Your task to perform on an android device: toggle javascript in the chrome app Image 0: 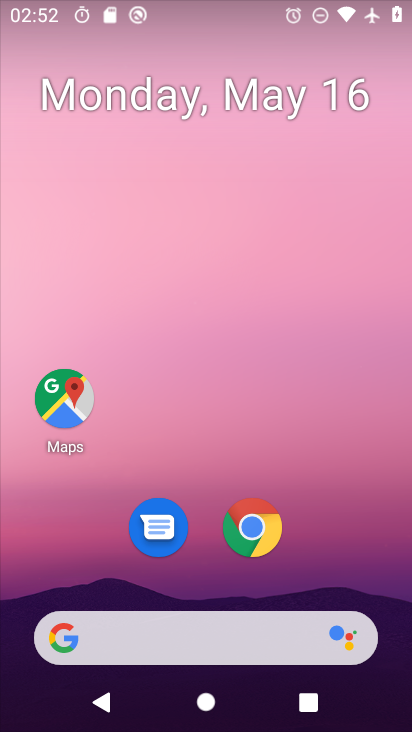
Step 0: click (303, 166)
Your task to perform on an android device: toggle javascript in the chrome app Image 1: 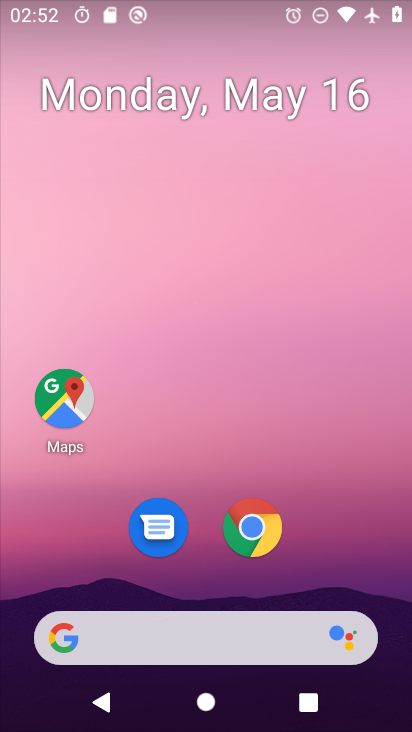
Step 1: drag from (197, 638) to (308, 251)
Your task to perform on an android device: toggle javascript in the chrome app Image 2: 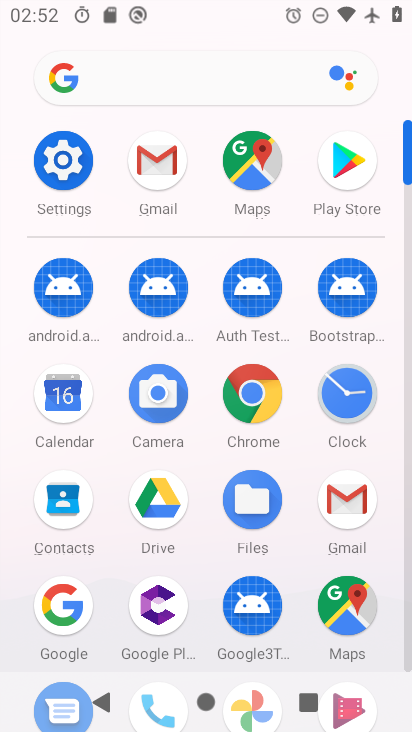
Step 2: click (238, 390)
Your task to perform on an android device: toggle javascript in the chrome app Image 3: 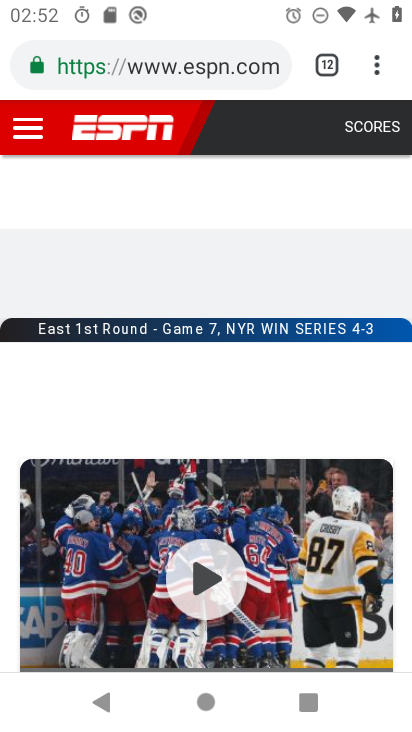
Step 3: drag from (378, 72) to (203, 575)
Your task to perform on an android device: toggle javascript in the chrome app Image 4: 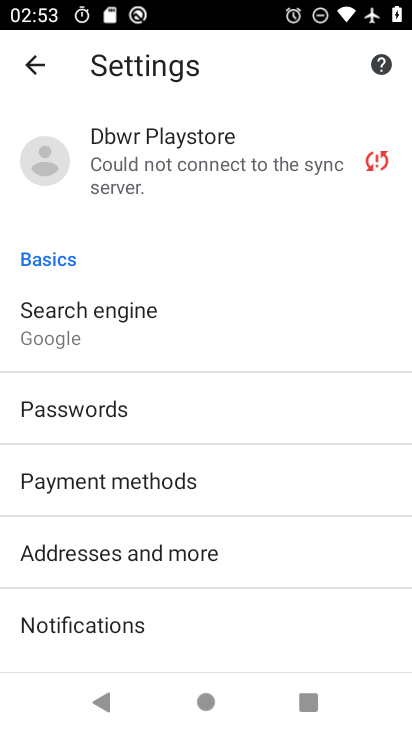
Step 4: drag from (182, 628) to (283, 226)
Your task to perform on an android device: toggle javascript in the chrome app Image 5: 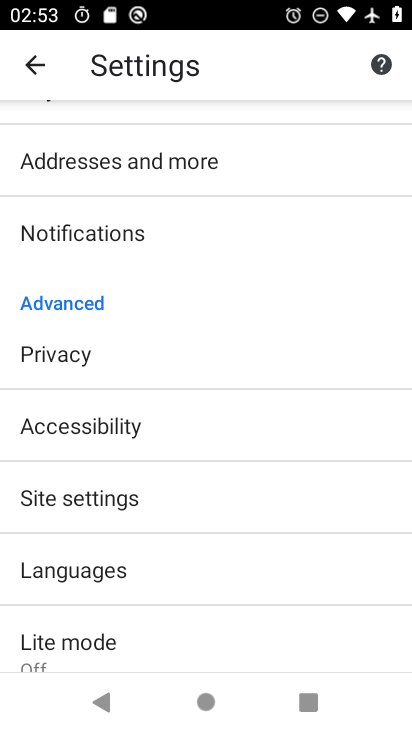
Step 5: click (82, 494)
Your task to perform on an android device: toggle javascript in the chrome app Image 6: 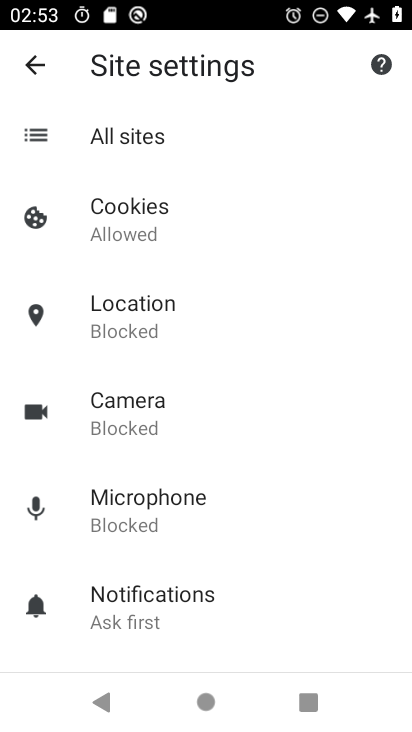
Step 6: drag from (264, 601) to (296, 160)
Your task to perform on an android device: toggle javascript in the chrome app Image 7: 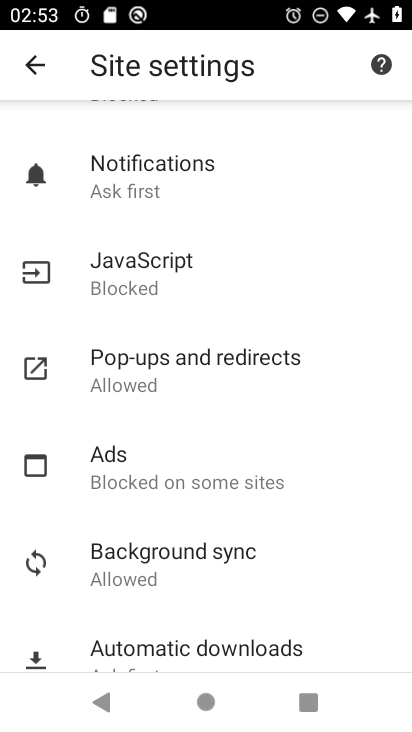
Step 7: click (162, 274)
Your task to perform on an android device: toggle javascript in the chrome app Image 8: 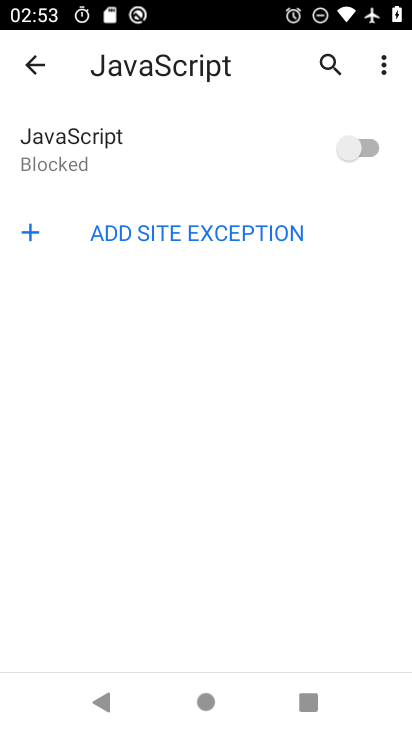
Step 8: click (359, 141)
Your task to perform on an android device: toggle javascript in the chrome app Image 9: 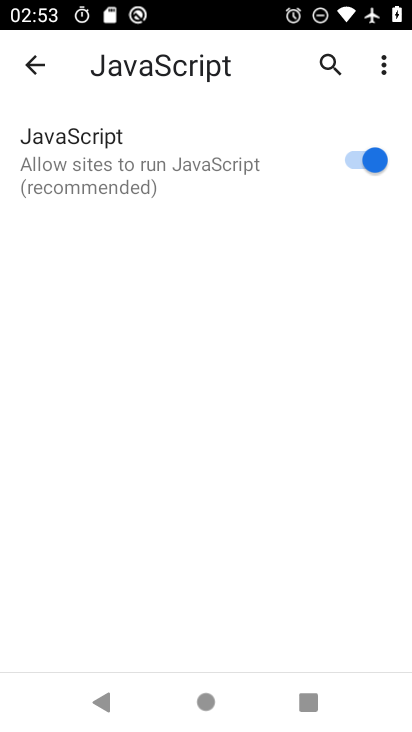
Step 9: task complete